Your task to perform on an android device: Search for Mexican restaurants on Maps Image 0: 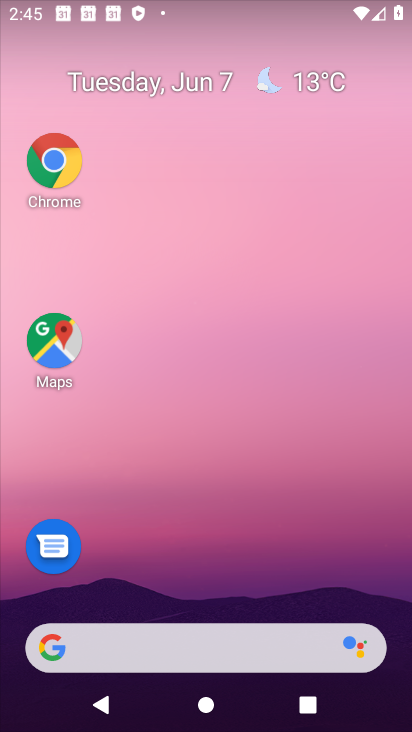
Step 0: drag from (173, 544) to (147, 54)
Your task to perform on an android device: Search for Mexican restaurants on Maps Image 1: 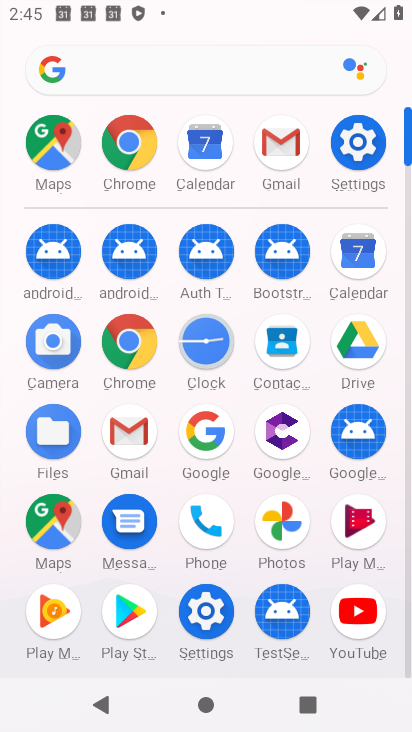
Step 1: click (57, 525)
Your task to perform on an android device: Search for Mexican restaurants on Maps Image 2: 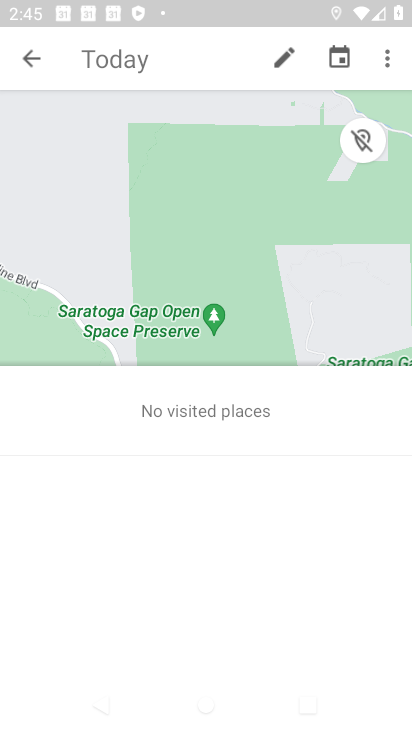
Step 2: click (35, 74)
Your task to perform on an android device: Search for Mexican restaurants on Maps Image 3: 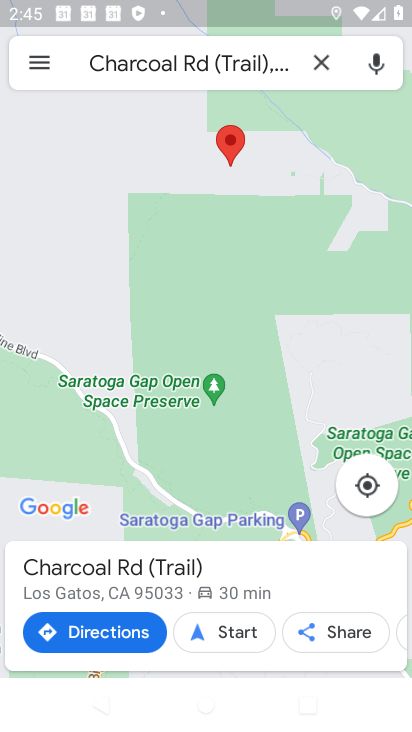
Step 3: click (317, 61)
Your task to perform on an android device: Search for Mexican restaurants on Maps Image 4: 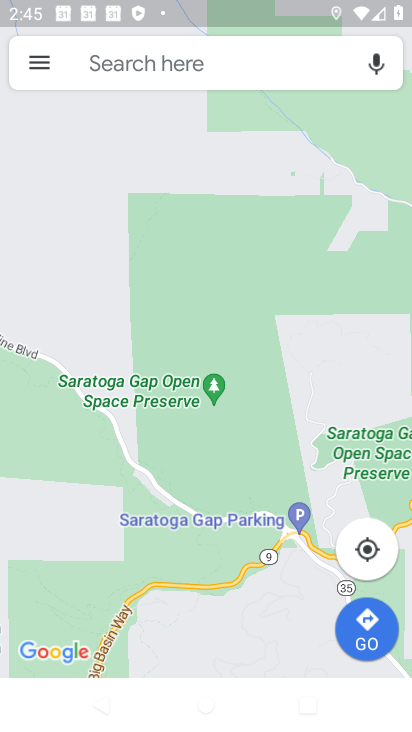
Step 4: click (198, 62)
Your task to perform on an android device: Search for Mexican restaurants on Maps Image 5: 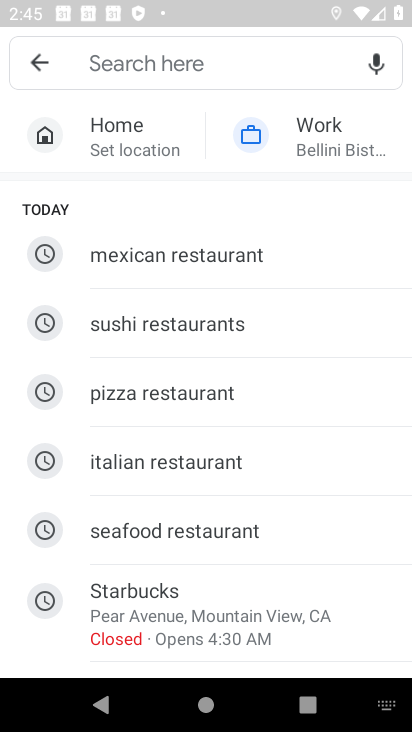
Step 5: click (119, 260)
Your task to perform on an android device: Search for Mexican restaurants on Maps Image 6: 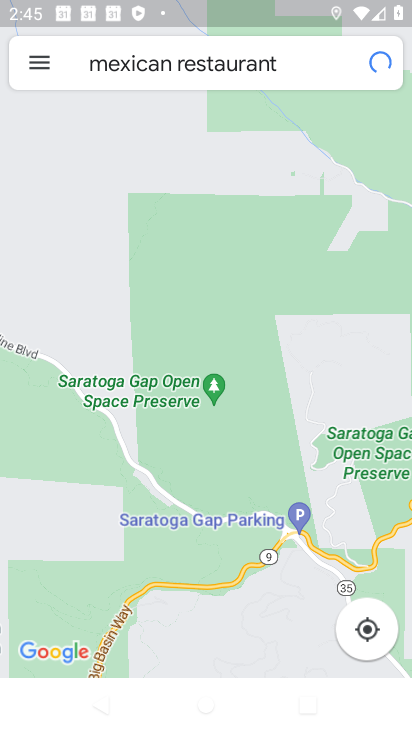
Step 6: task complete